Your task to perform on an android device: Open location settings Image 0: 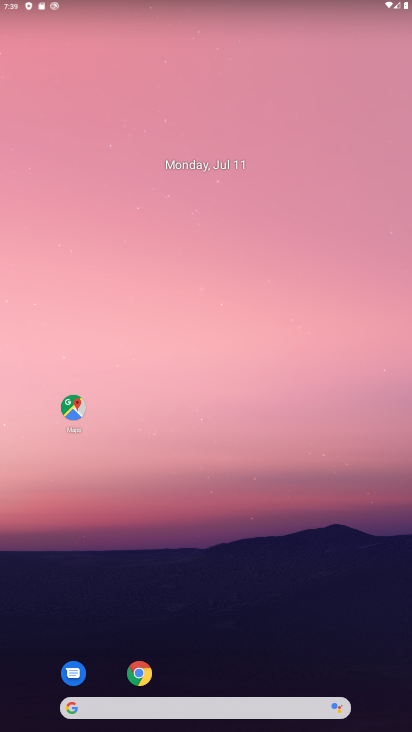
Step 0: drag from (315, 645) to (291, 183)
Your task to perform on an android device: Open location settings Image 1: 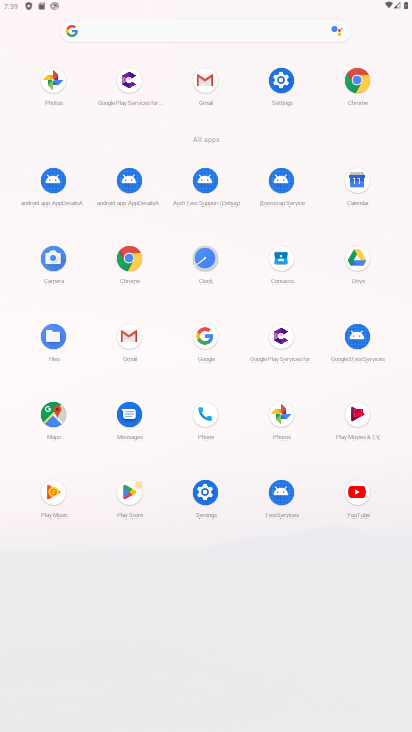
Step 1: click (285, 82)
Your task to perform on an android device: Open location settings Image 2: 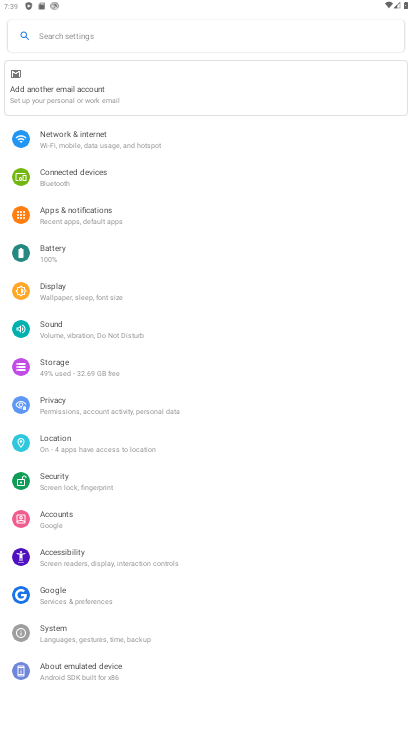
Step 2: click (92, 444)
Your task to perform on an android device: Open location settings Image 3: 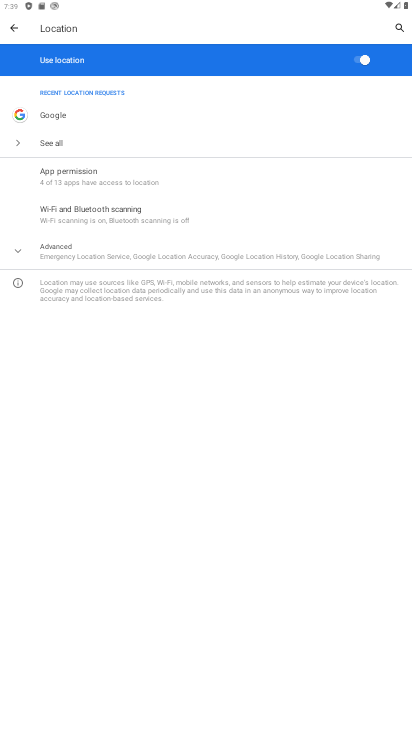
Step 3: task complete